Your task to perform on an android device: Go to CNN.com Image 0: 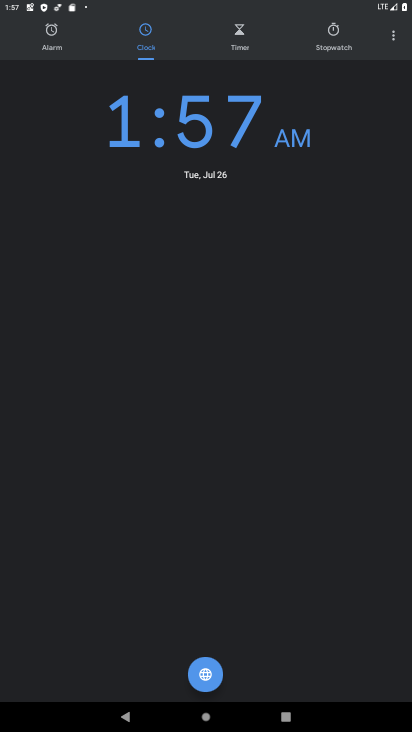
Step 0: press home button
Your task to perform on an android device: Go to CNN.com Image 1: 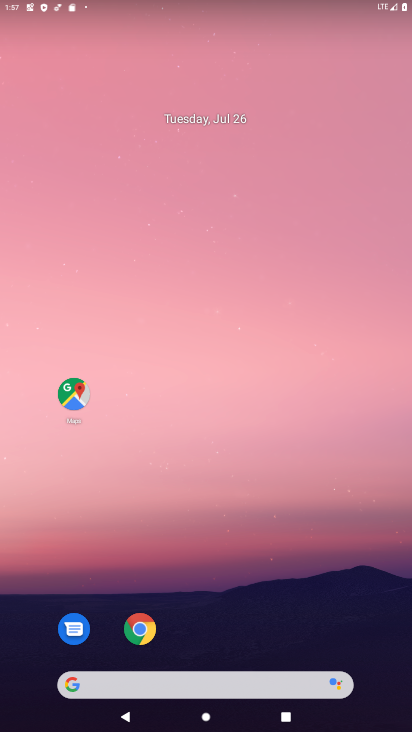
Step 1: drag from (372, 623) to (307, 100)
Your task to perform on an android device: Go to CNN.com Image 2: 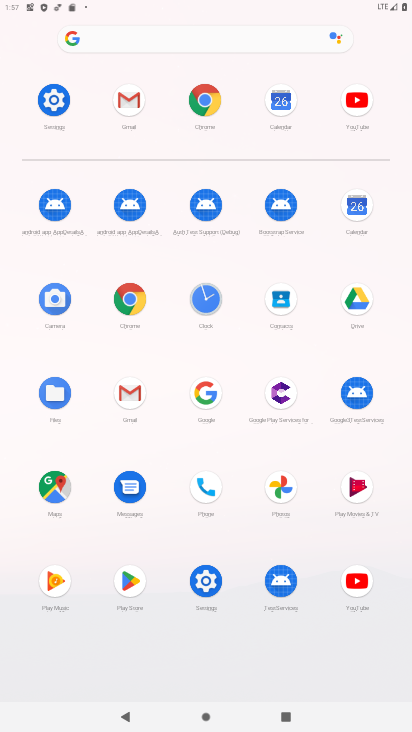
Step 2: click (204, 106)
Your task to perform on an android device: Go to CNN.com Image 3: 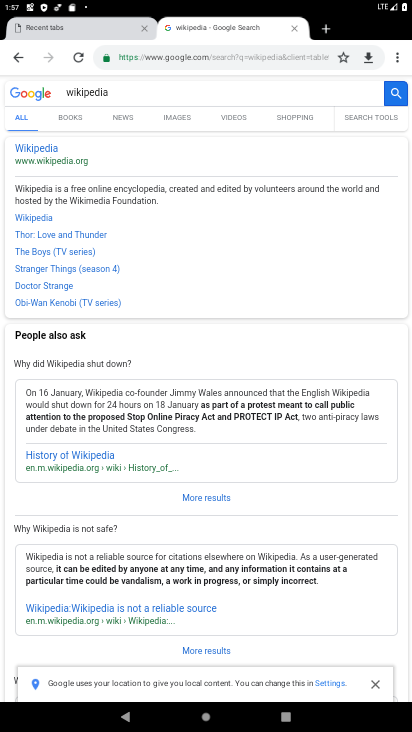
Step 3: click (226, 53)
Your task to perform on an android device: Go to CNN.com Image 4: 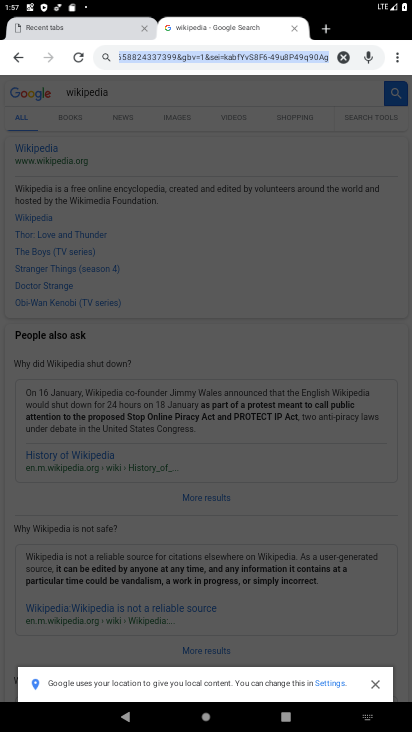
Step 4: click (343, 52)
Your task to perform on an android device: Go to CNN.com Image 5: 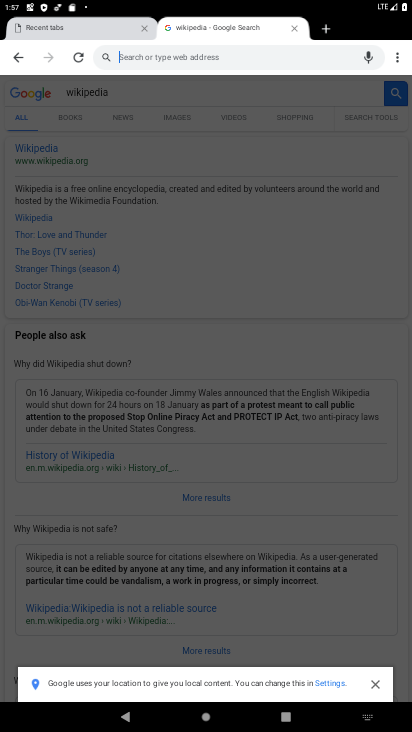
Step 5: type "CNN.com"
Your task to perform on an android device: Go to CNN.com Image 6: 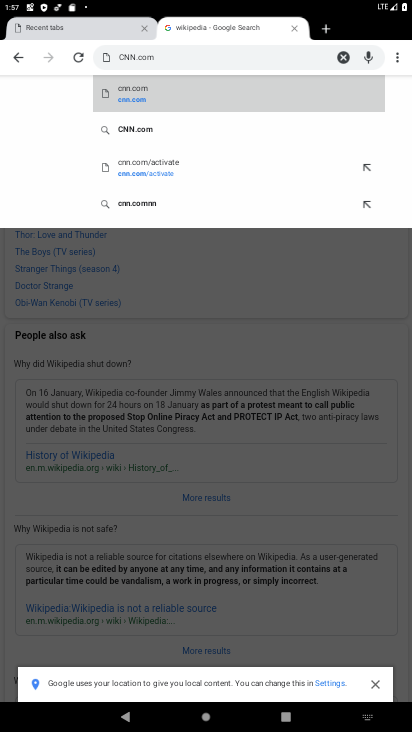
Step 6: click (140, 119)
Your task to perform on an android device: Go to CNN.com Image 7: 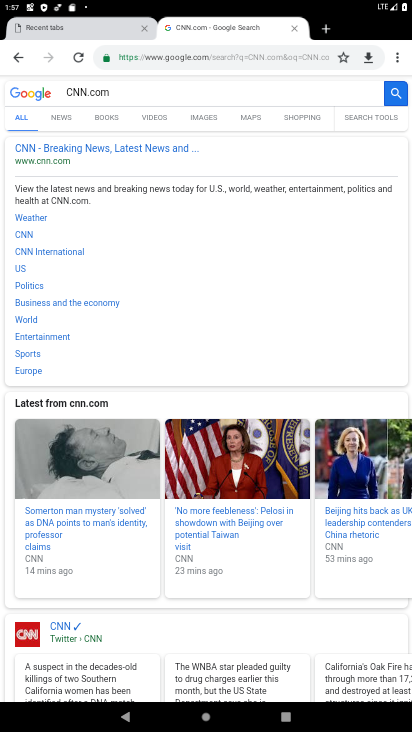
Step 7: task complete